Your task to perform on an android device: Open Google Chrome and open the bookmarks view Image 0: 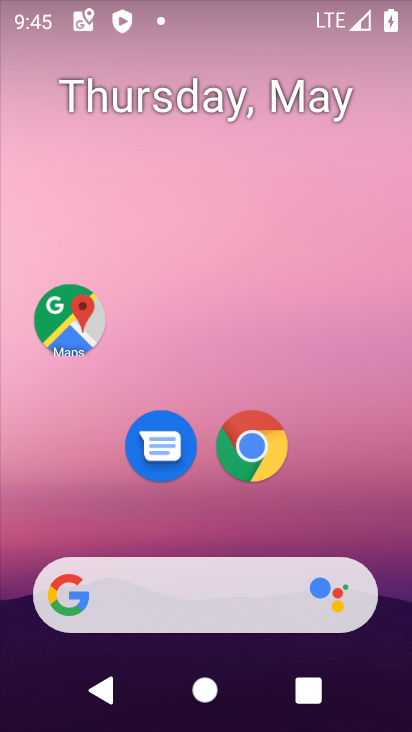
Step 0: click (255, 445)
Your task to perform on an android device: Open Google Chrome and open the bookmarks view Image 1: 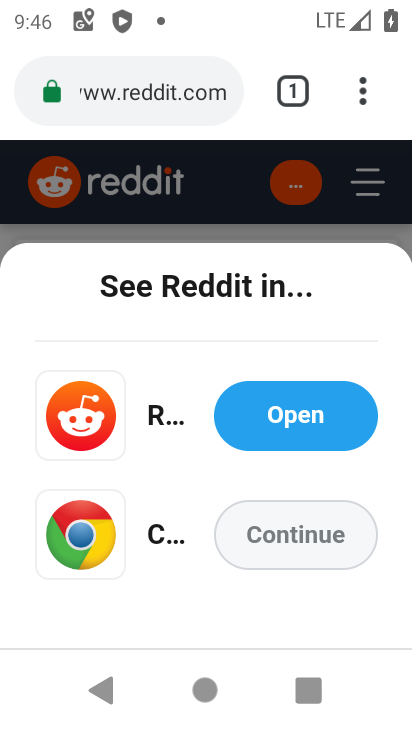
Step 1: click (360, 100)
Your task to perform on an android device: Open Google Chrome and open the bookmarks view Image 2: 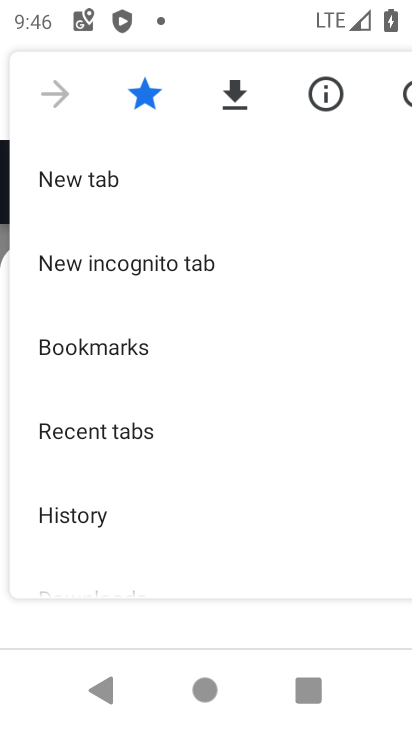
Step 2: click (89, 353)
Your task to perform on an android device: Open Google Chrome and open the bookmarks view Image 3: 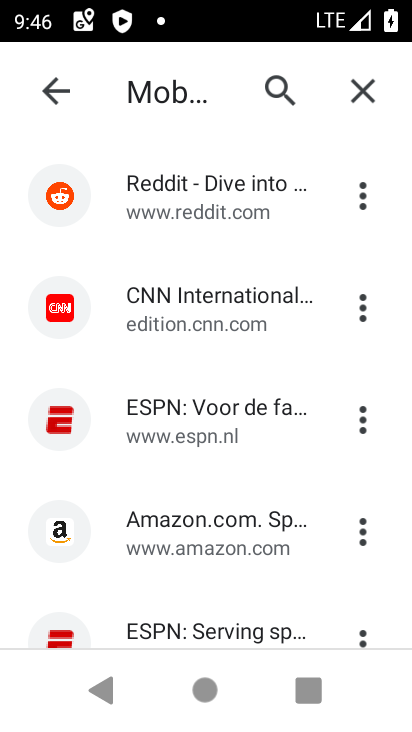
Step 3: task complete